Your task to perform on an android device: toggle javascript in the chrome app Image 0: 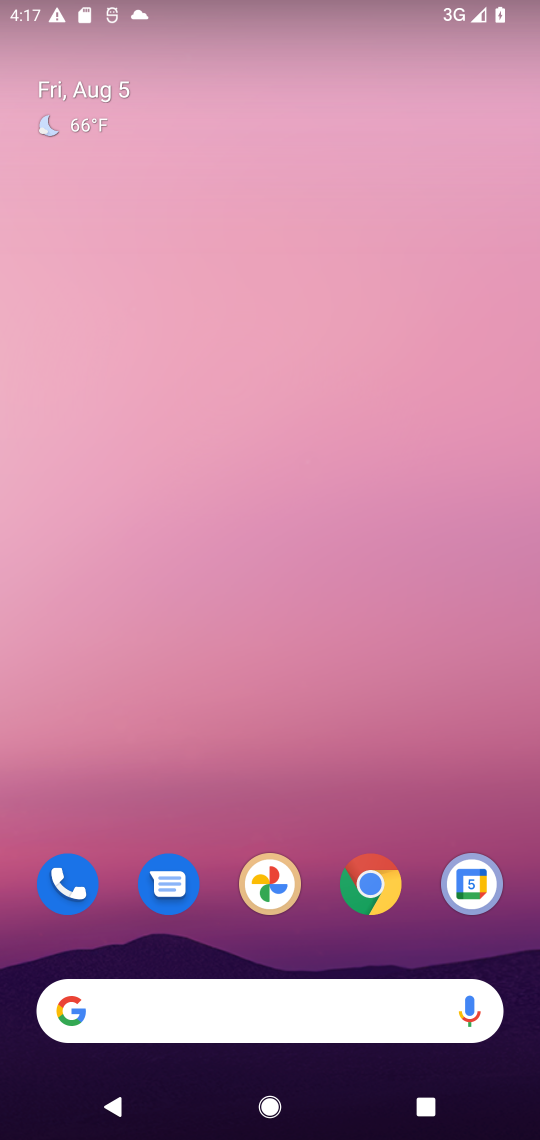
Step 0: drag from (431, 946) to (302, 73)
Your task to perform on an android device: toggle javascript in the chrome app Image 1: 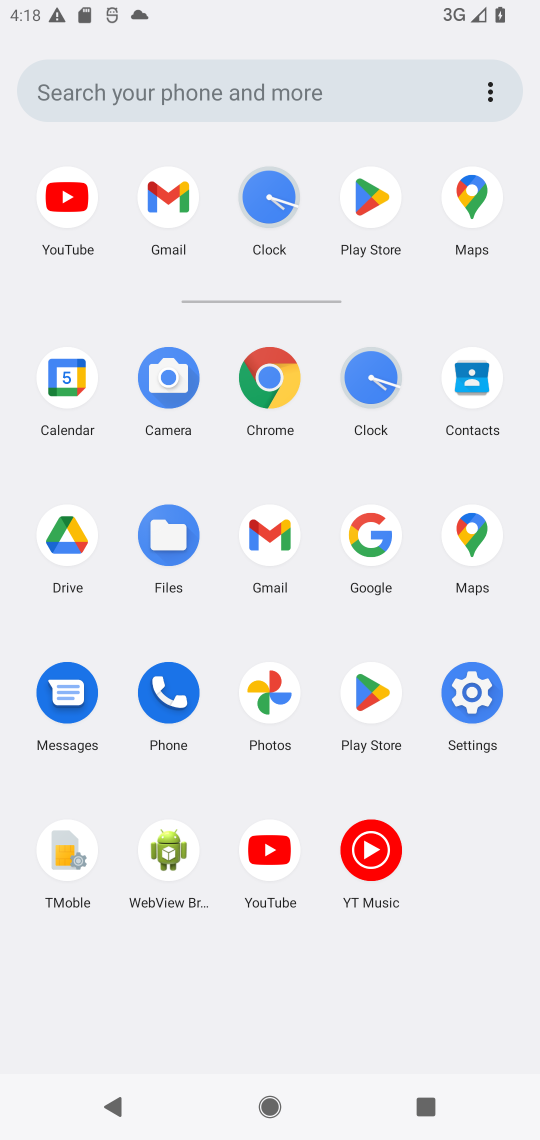
Step 1: click (258, 401)
Your task to perform on an android device: toggle javascript in the chrome app Image 2: 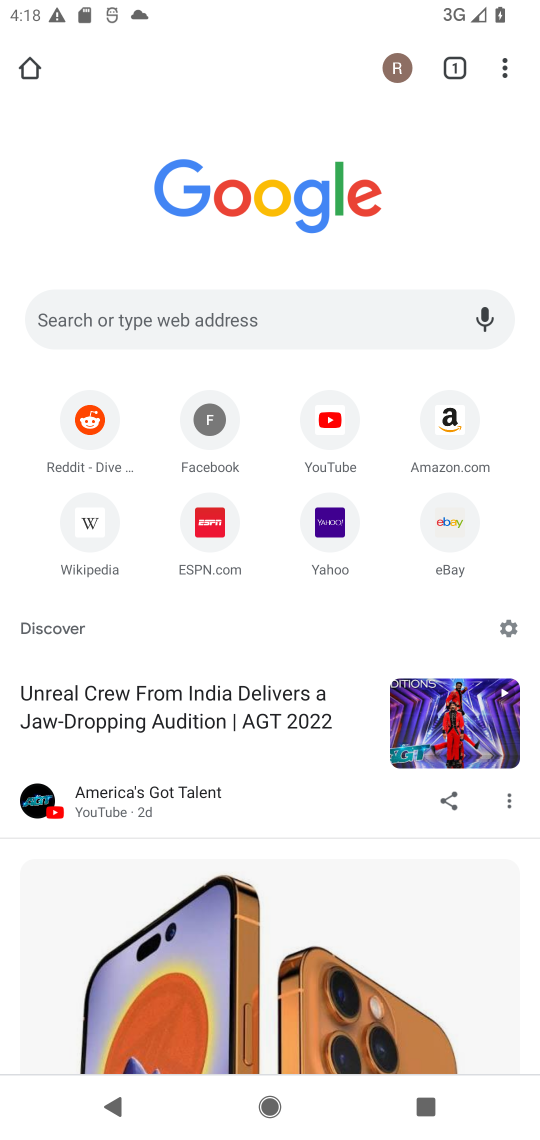
Step 2: click (505, 65)
Your task to perform on an android device: toggle javascript in the chrome app Image 3: 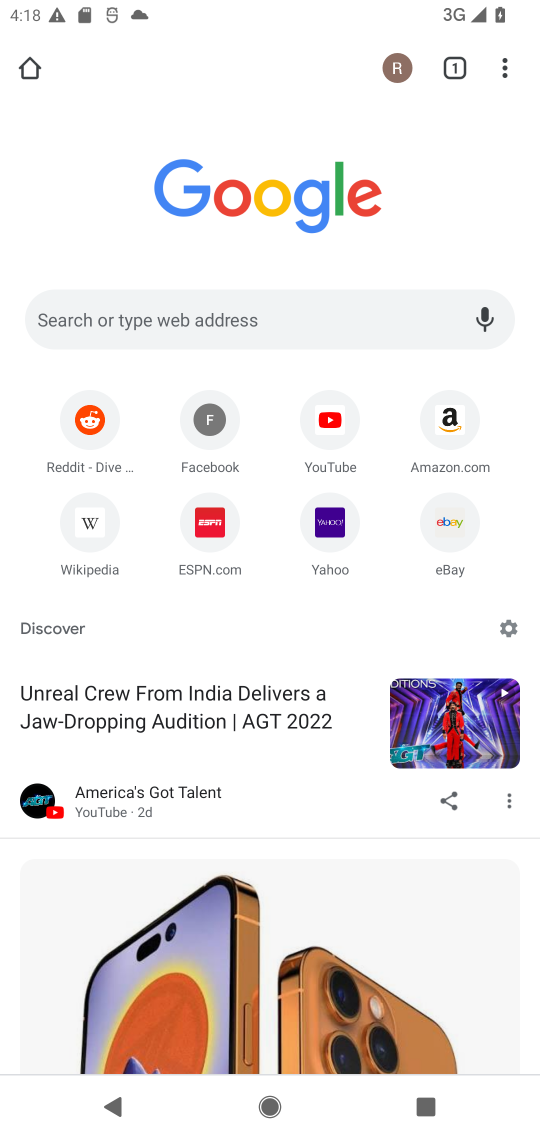
Step 3: click (505, 65)
Your task to perform on an android device: toggle javascript in the chrome app Image 4: 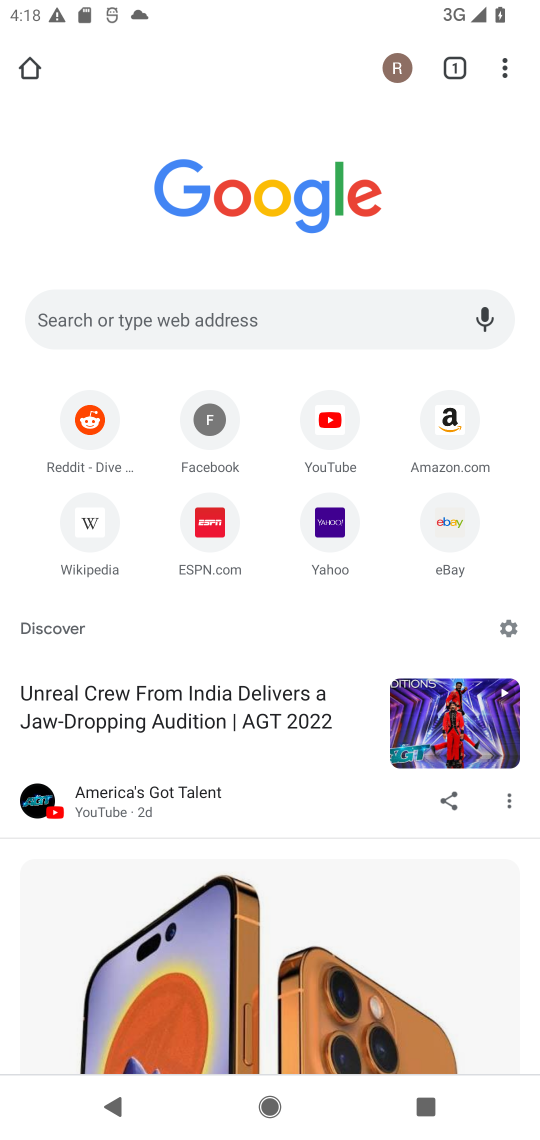
Step 4: click (505, 65)
Your task to perform on an android device: toggle javascript in the chrome app Image 5: 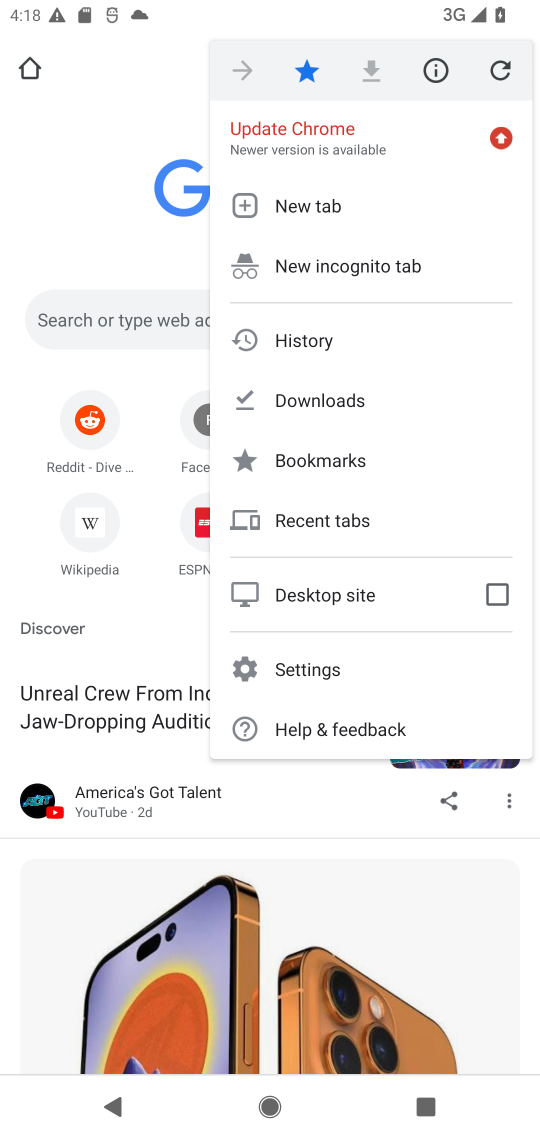
Step 5: click (338, 663)
Your task to perform on an android device: toggle javascript in the chrome app Image 6: 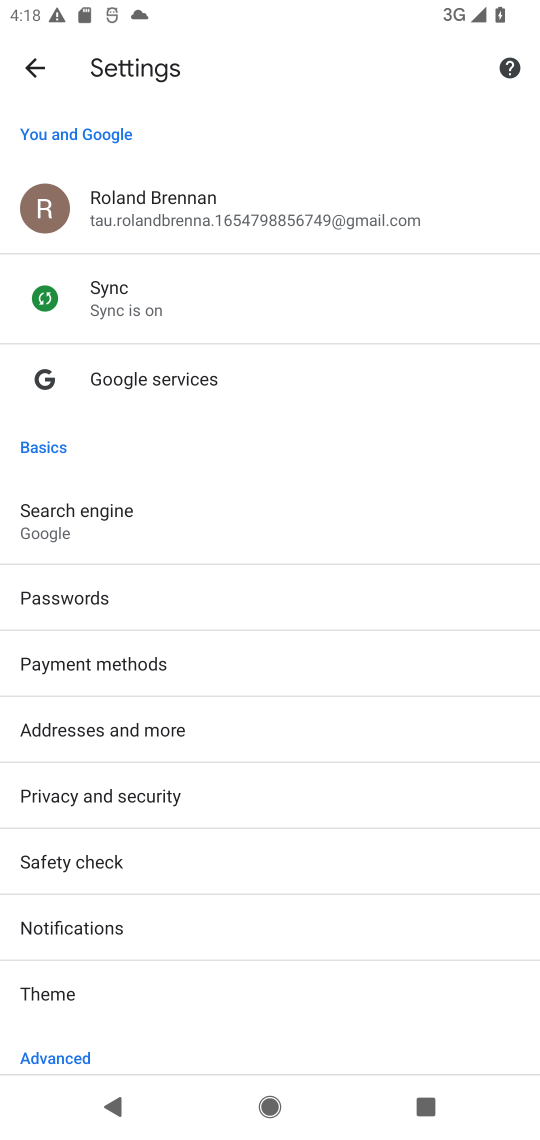
Step 6: drag from (205, 1005) to (193, 141)
Your task to perform on an android device: toggle javascript in the chrome app Image 7: 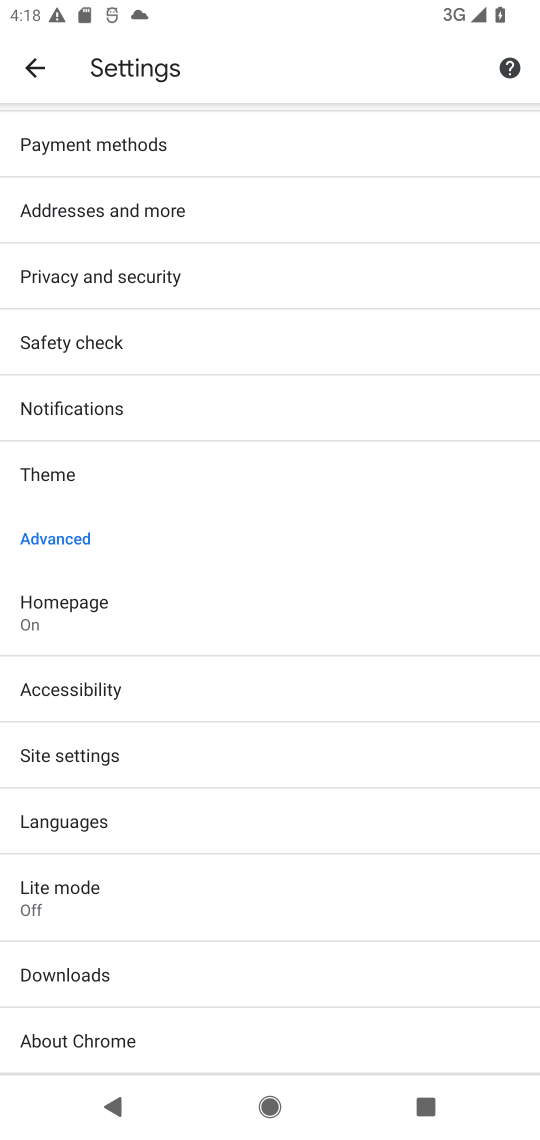
Step 7: click (95, 771)
Your task to perform on an android device: toggle javascript in the chrome app Image 8: 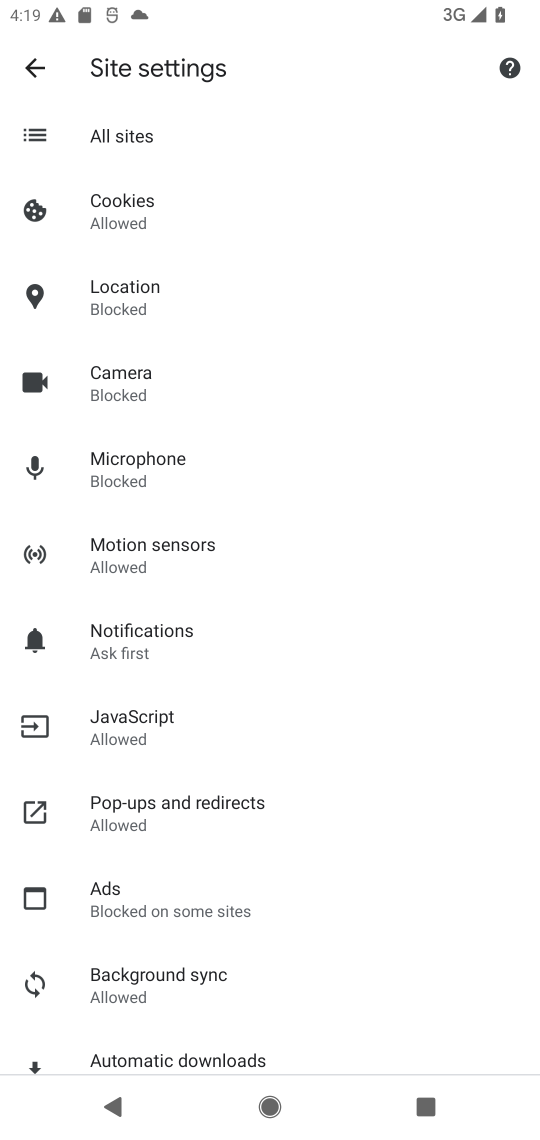
Step 8: click (153, 737)
Your task to perform on an android device: toggle javascript in the chrome app Image 9: 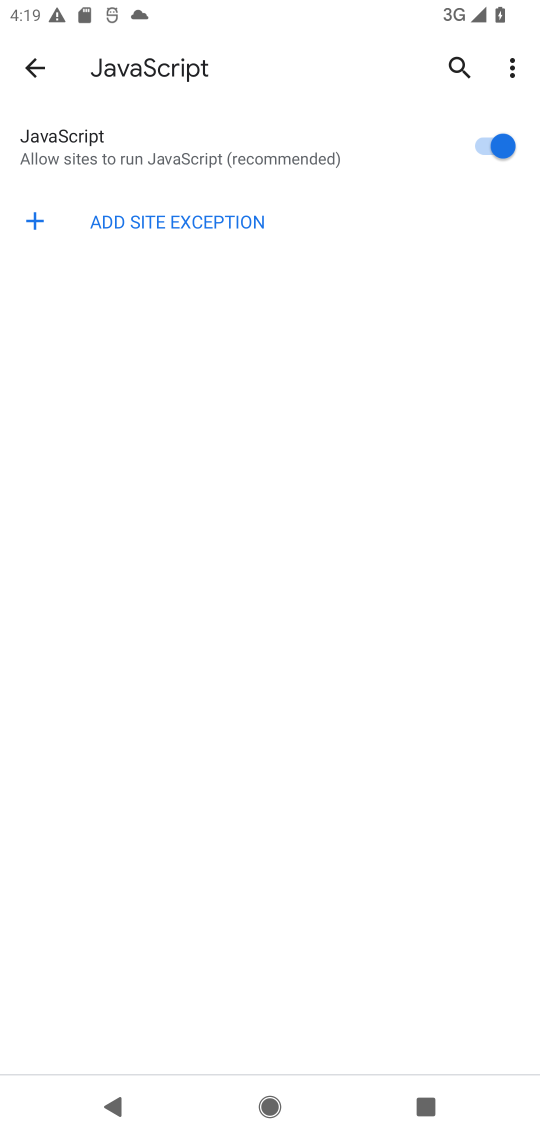
Step 9: click (478, 145)
Your task to perform on an android device: toggle javascript in the chrome app Image 10: 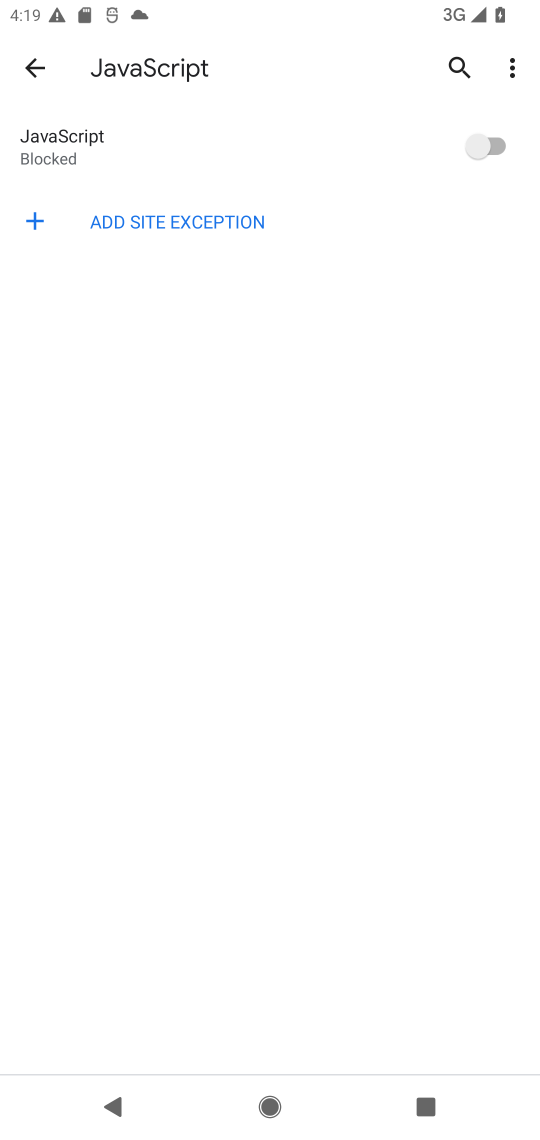
Step 10: task complete